Your task to perform on an android device: set the stopwatch Image 0: 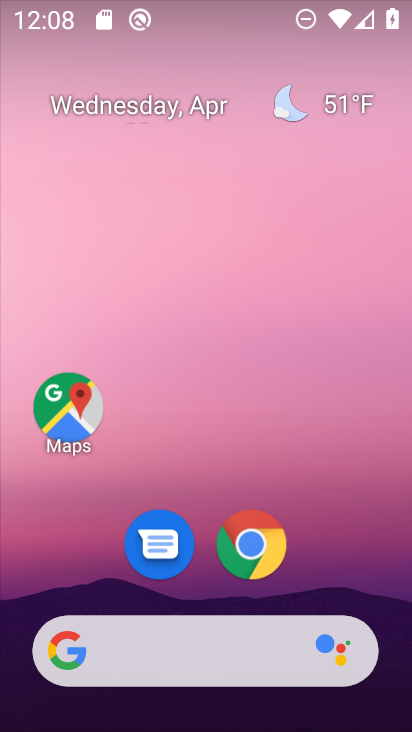
Step 0: drag from (340, 575) to (296, 134)
Your task to perform on an android device: set the stopwatch Image 1: 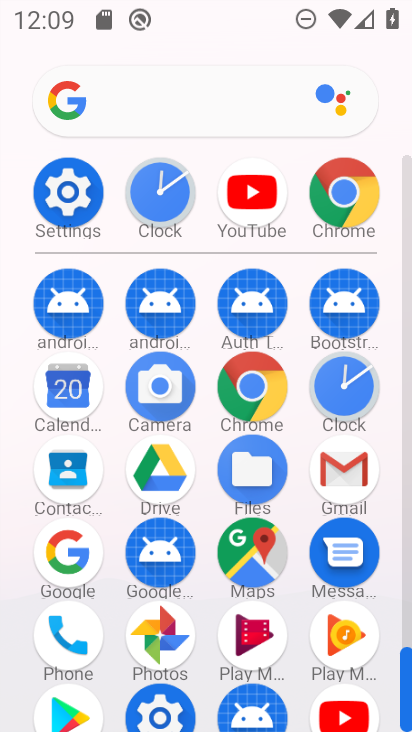
Step 1: click (358, 390)
Your task to perform on an android device: set the stopwatch Image 2: 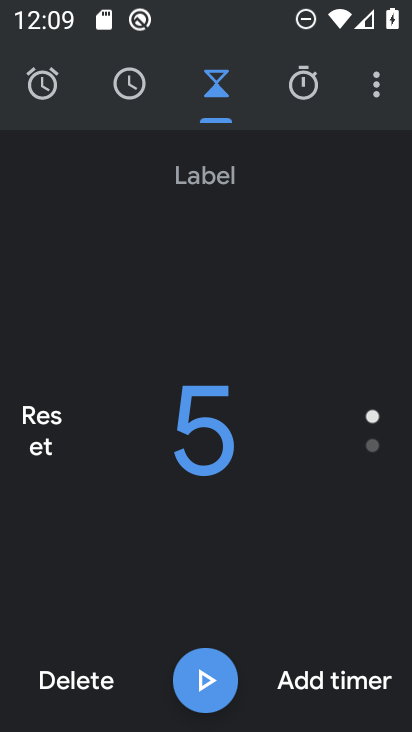
Step 2: click (302, 93)
Your task to perform on an android device: set the stopwatch Image 3: 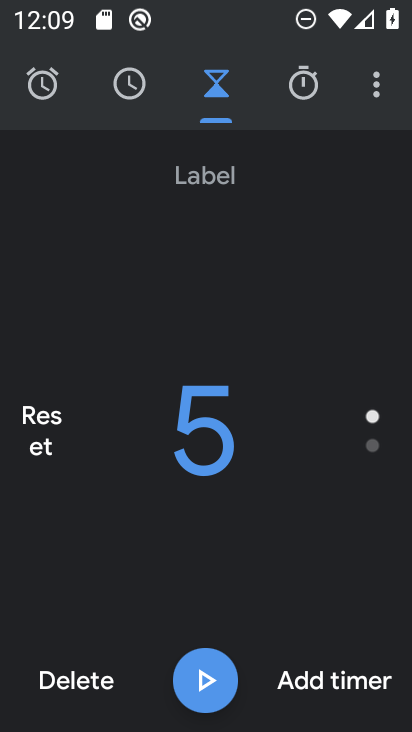
Step 3: click (301, 96)
Your task to perform on an android device: set the stopwatch Image 4: 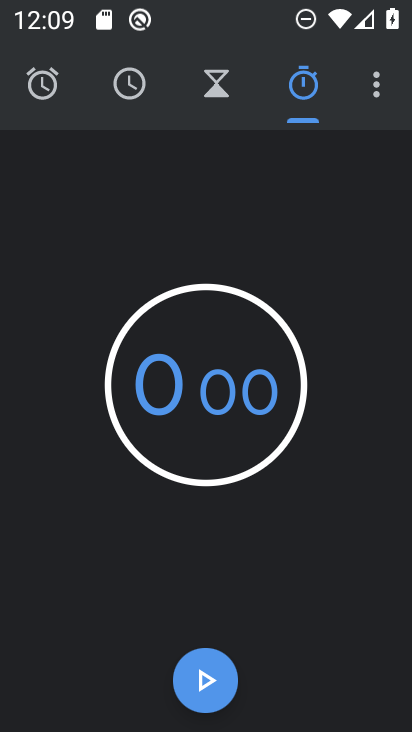
Step 4: click (217, 691)
Your task to perform on an android device: set the stopwatch Image 5: 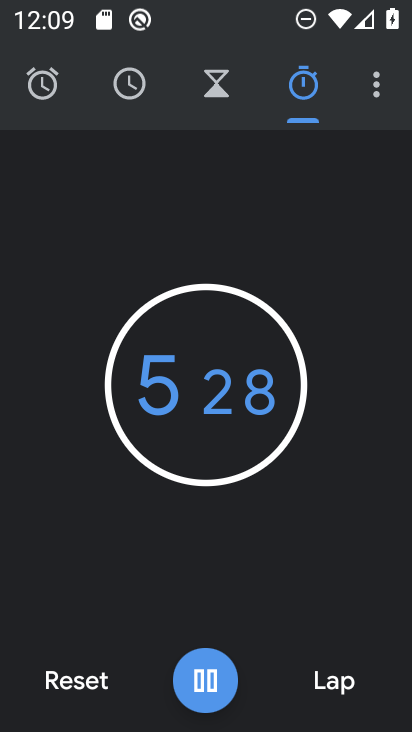
Step 5: task complete